Your task to perform on an android device: Open calendar and show me the third week of next month Image 0: 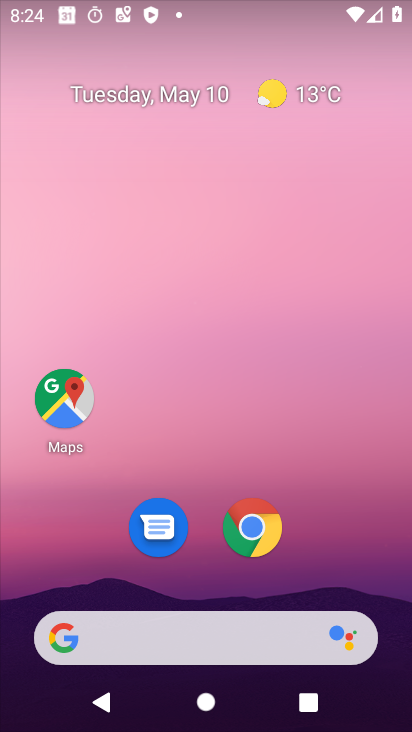
Step 0: press home button
Your task to perform on an android device: Open calendar and show me the third week of next month Image 1: 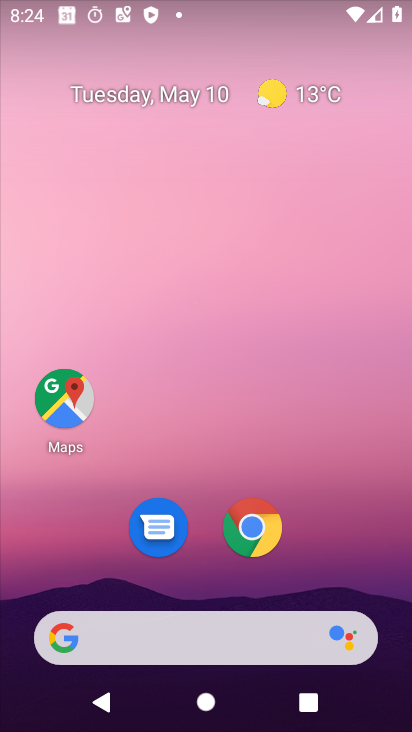
Step 1: drag from (45, 584) to (226, 109)
Your task to perform on an android device: Open calendar and show me the third week of next month Image 2: 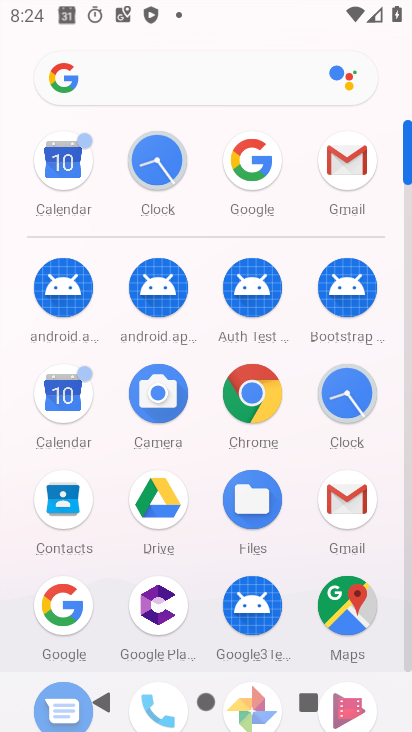
Step 2: click (64, 394)
Your task to perform on an android device: Open calendar and show me the third week of next month Image 3: 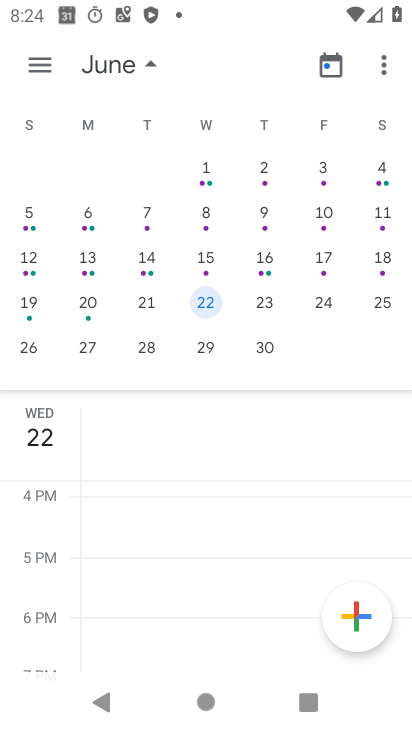
Step 3: click (128, 62)
Your task to perform on an android device: Open calendar and show me the third week of next month Image 4: 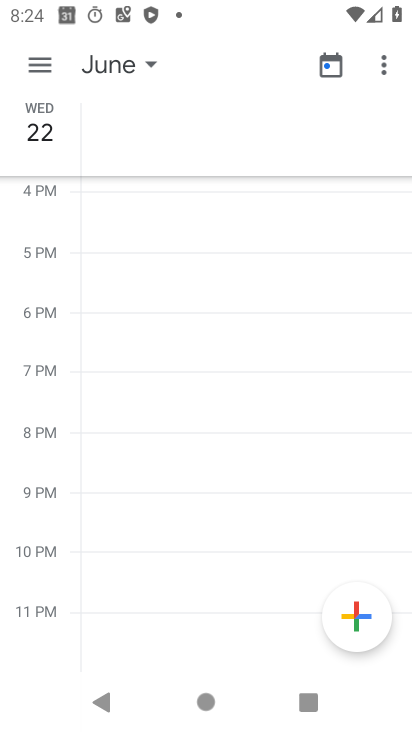
Step 4: click (128, 62)
Your task to perform on an android device: Open calendar and show me the third week of next month Image 5: 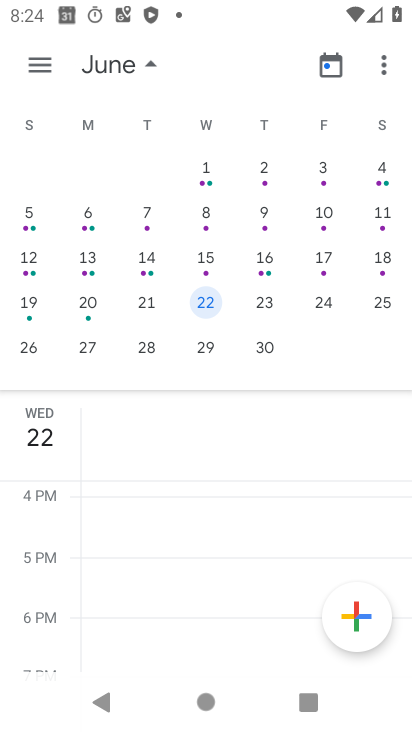
Step 5: click (206, 179)
Your task to perform on an android device: Open calendar and show me the third week of next month Image 6: 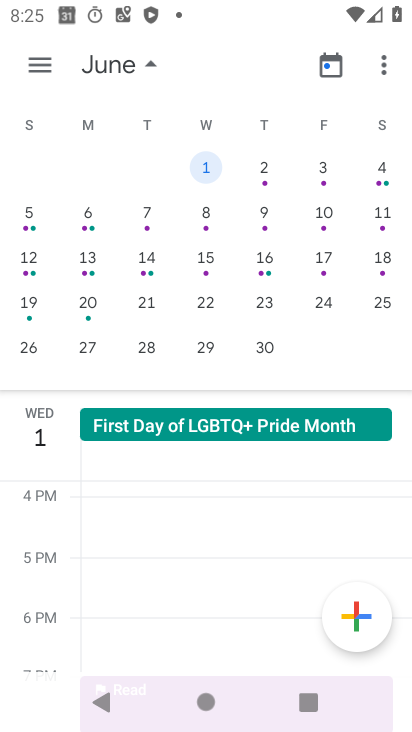
Step 6: click (206, 218)
Your task to perform on an android device: Open calendar and show me the third week of next month Image 7: 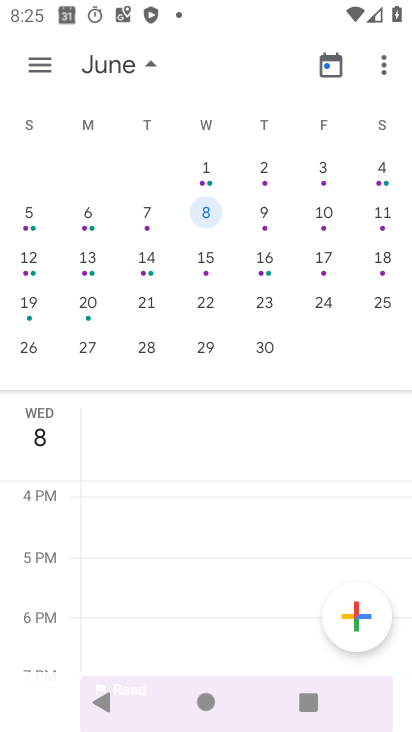
Step 7: click (200, 249)
Your task to perform on an android device: Open calendar and show me the third week of next month Image 8: 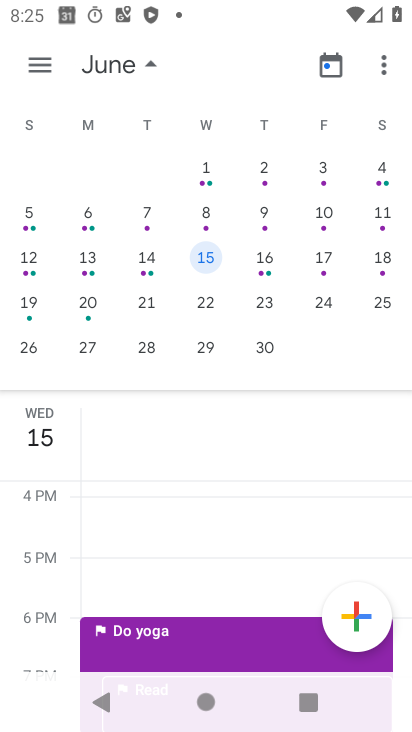
Step 8: task complete